Your task to perform on an android device: Go to calendar. Show me events next week Image 0: 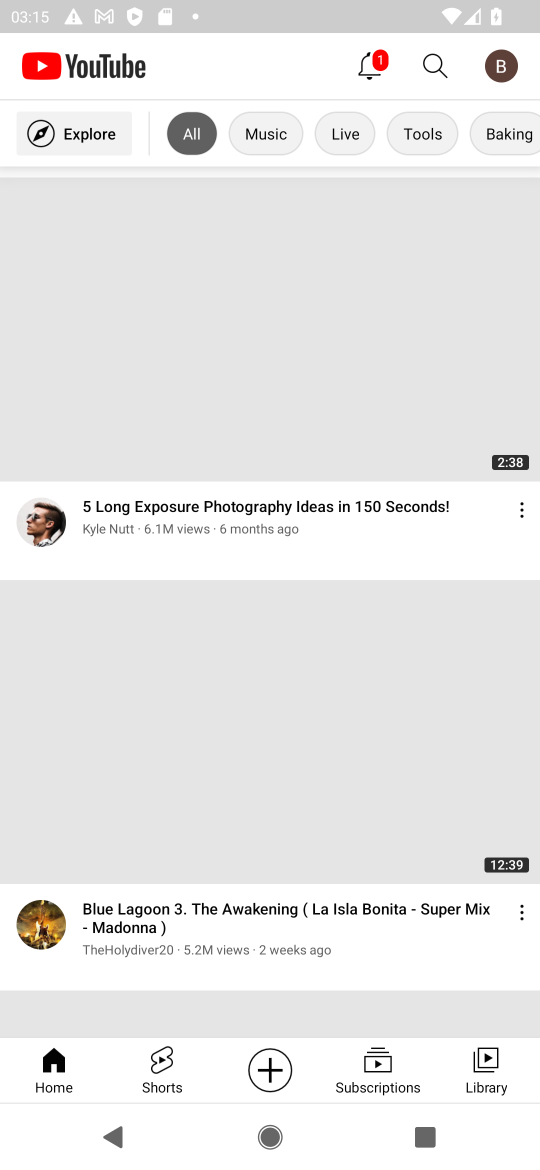
Step 0: press home button
Your task to perform on an android device: Go to calendar. Show me events next week Image 1: 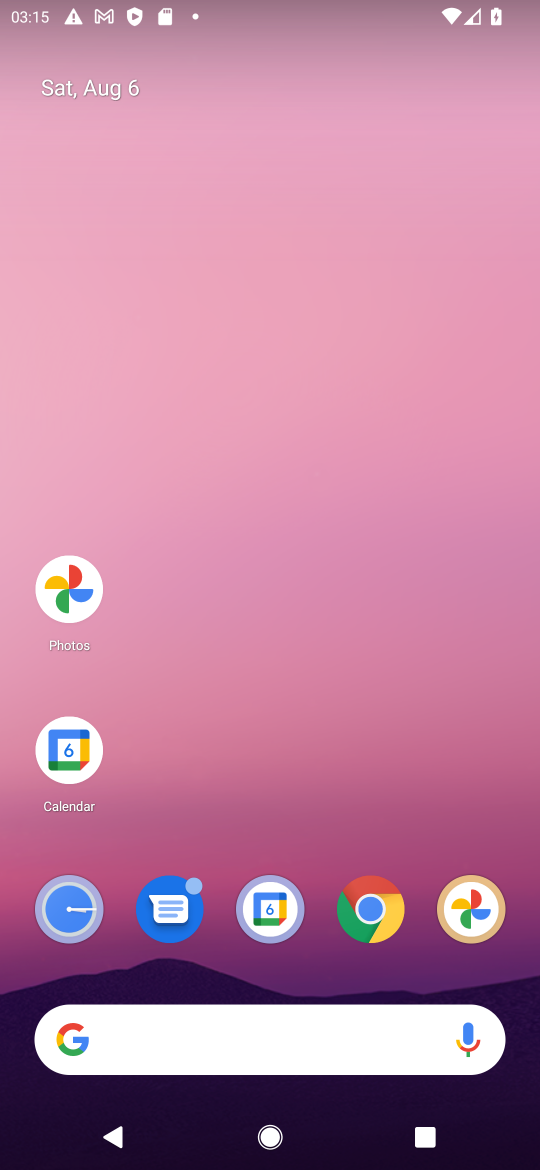
Step 1: click (57, 743)
Your task to perform on an android device: Go to calendar. Show me events next week Image 2: 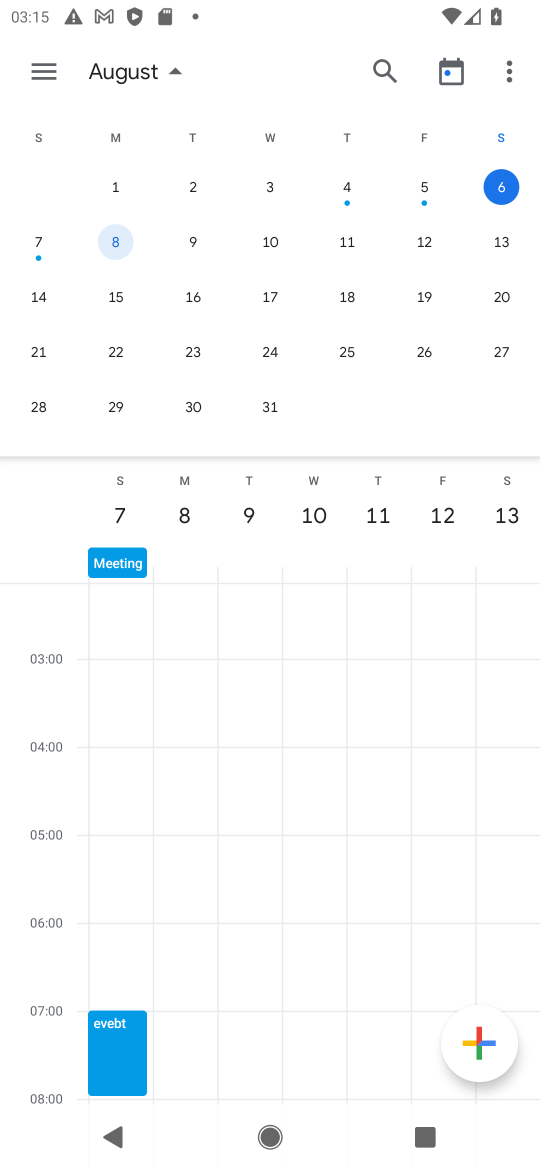
Step 2: task complete